Your task to perform on an android device: Open the Play Movies app and select the watchlist tab. Image 0: 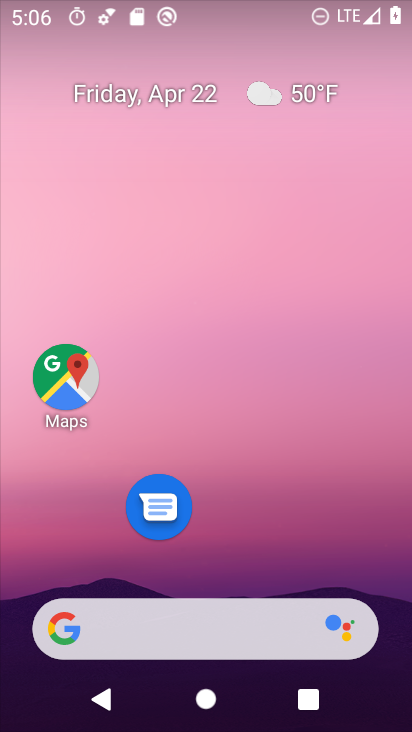
Step 0: drag from (266, 517) to (294, 107)
Your task to perform on an android device: Open the Play Movies app and select the watchlist tab. Image 1: 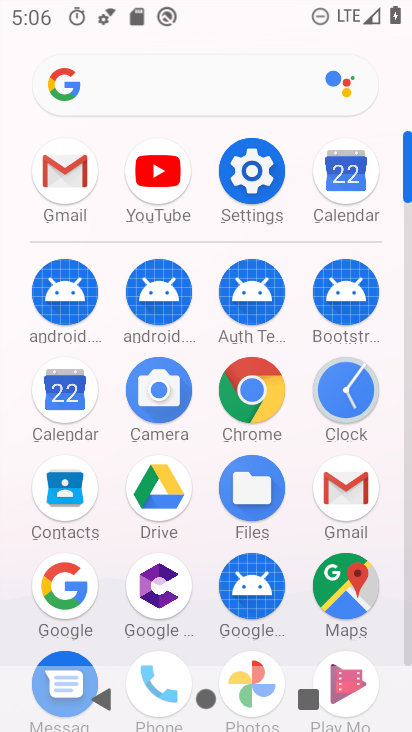
Step 1: click (171, 169)
Your task to perform on an android device: Open the Play Movies app and select the watchlist tab. Image 2: 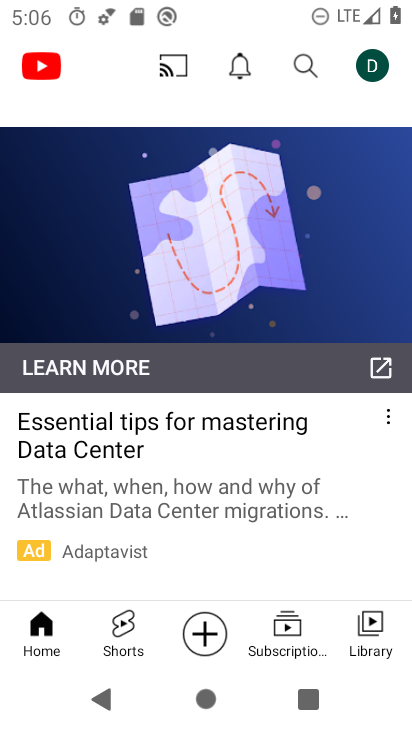
Step 2: click (366, 626)
Your task to perform on an android device: Open the Play Movies app and select the watchlist tab. Image 3: 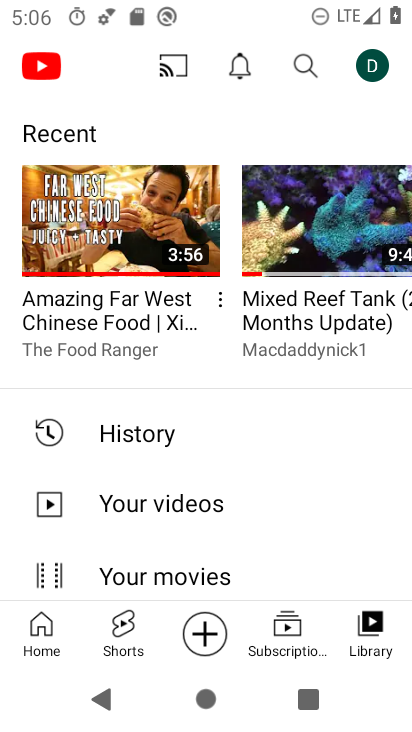
Step 3: drag from (214, 567) to (291, 161)
Your task to perform on an android device: Open the Play Movies app and select the watchlist tab. Image 4: 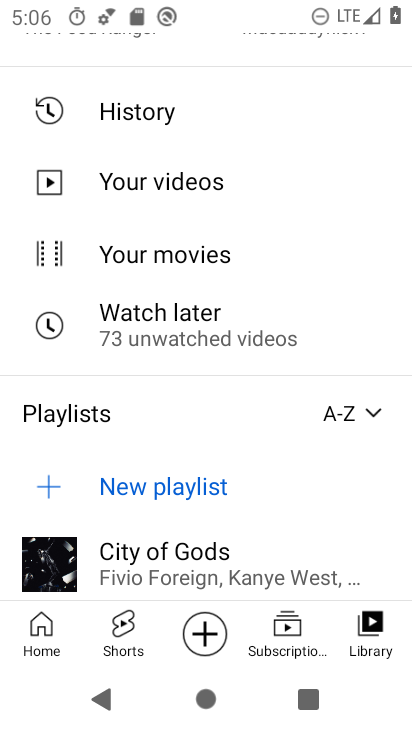
Step 4: drag from (243, 485) to (293, 114)
Your task to perform on an android device: Open the Play Movies app and select the watchlist tab. Image 5: 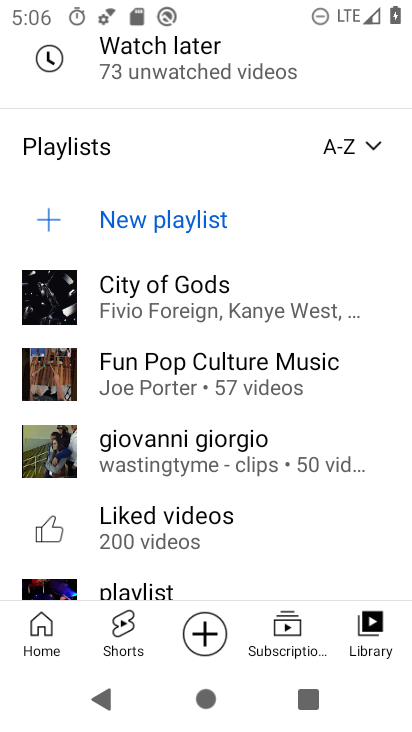
Step 5: drag from (297, 265) to (196, 637)
Your task to perform on an android device: Open the Play Movies app and select the watchlist tab. Image 6: 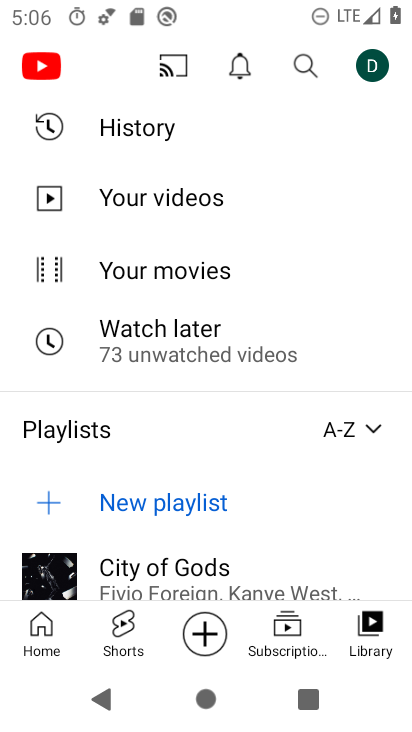
Step 6: drag from (208, 253) to (173, 603)
Your task to perform on an android device: Open the Play Movies app and select the watchlist tab. Image 7: 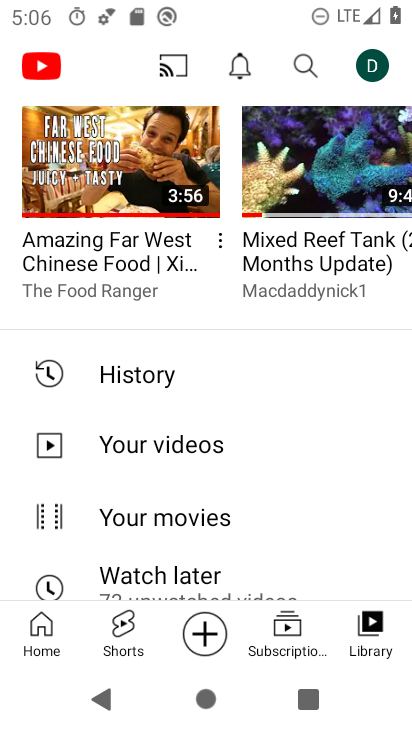
Step 7: drag from (186, 231) to (156, 634)
Your task to perform on an android device: Open the Play Movies app and select the watchlist tab. Image 8: 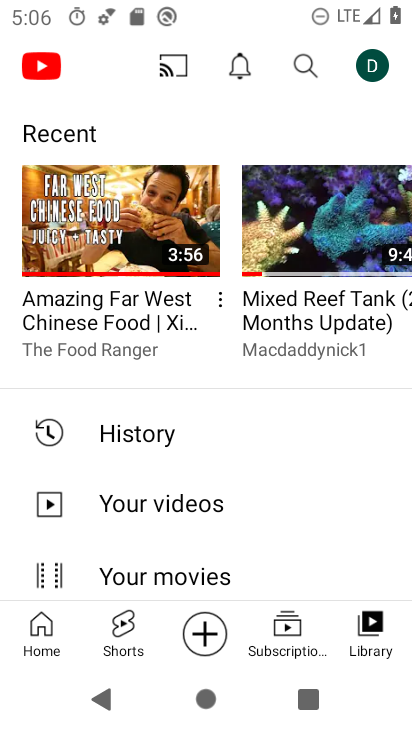
Step 8: drag from (175, 545) to (203, 385)
Your task to perform on an android device: Open the Play Movies app and select the watchlist tab. Image 9: 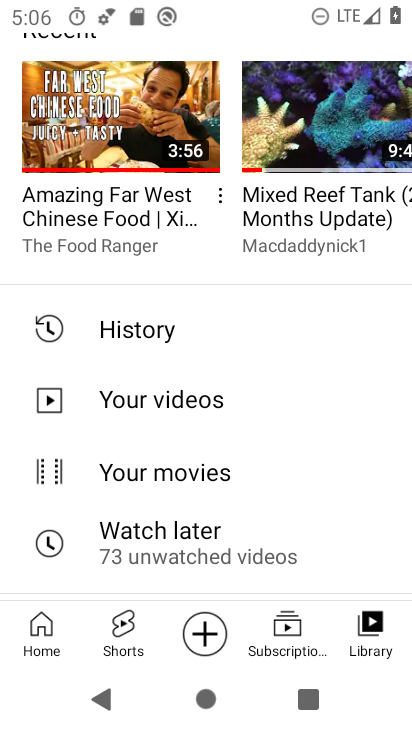
Step 9: click (171, 562)
Your task to perform on an android device: Open the Play Movies app and select the watchlist tab. Image 10: 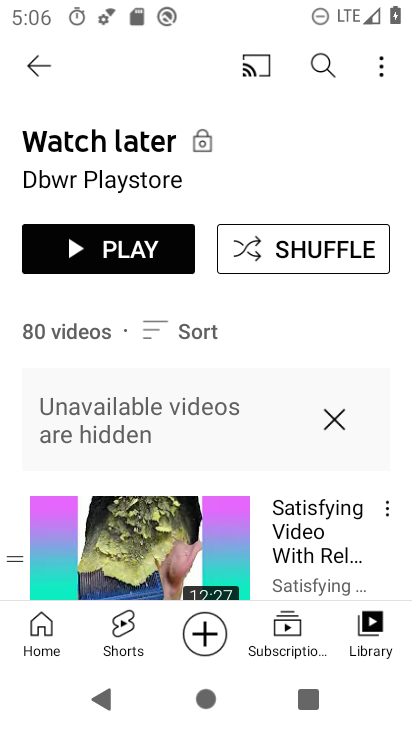
Step 10: task complete